Your task to perform on an android device: Show me popular videos on Youtube Image 0: 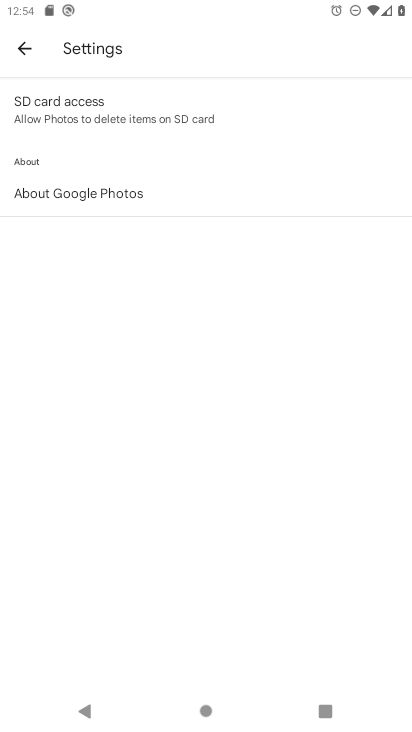
Step 0: press home button
Your task to perform on an android device: Show me popular videos on Youtube Image 1: 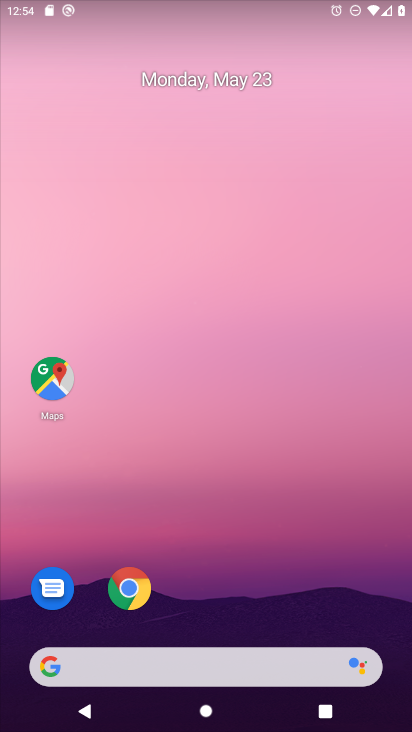
Step 1: drag from (268, 695) to (253, 30)
Your task to perform on an android device: Show me popular videos on Youtube Image 2: 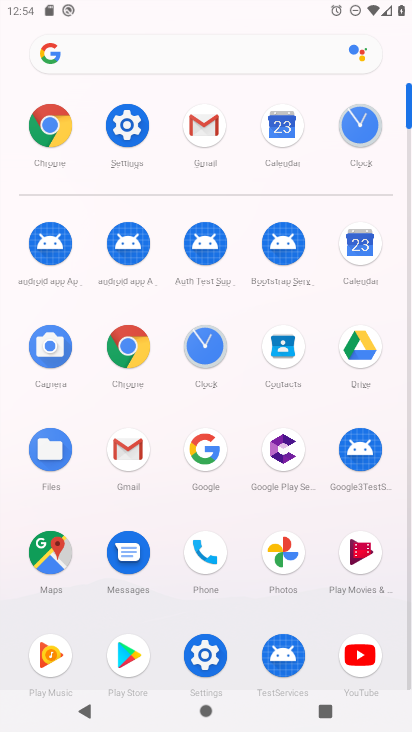
Step 2: click (358, 653)
Your task to perform on an android device: Show me popular videos on Youtube Image 3: 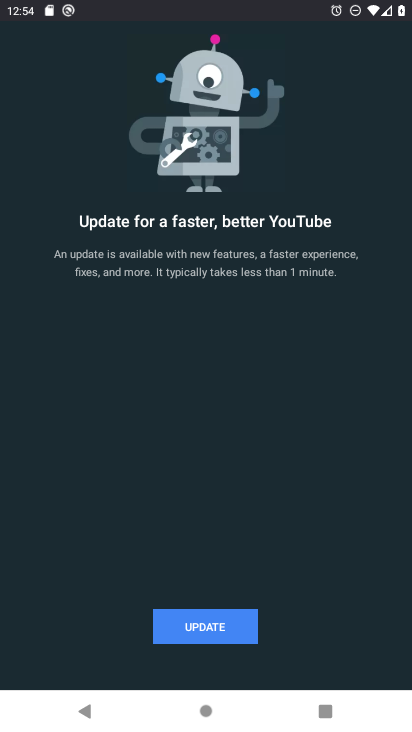
Step 3: click (194, 629)
Your task to perform on an android device: Show me popular videos on Youtube Image 4: 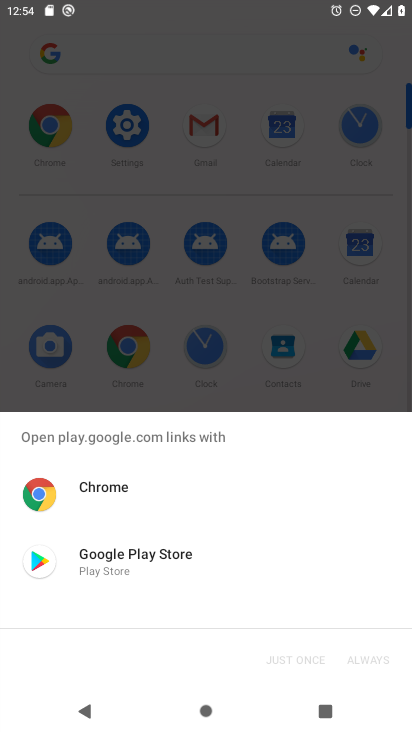
Step 4: click (100, 564)
Your task to perform on an android device: Show me popular videos on Youtube Image 5: 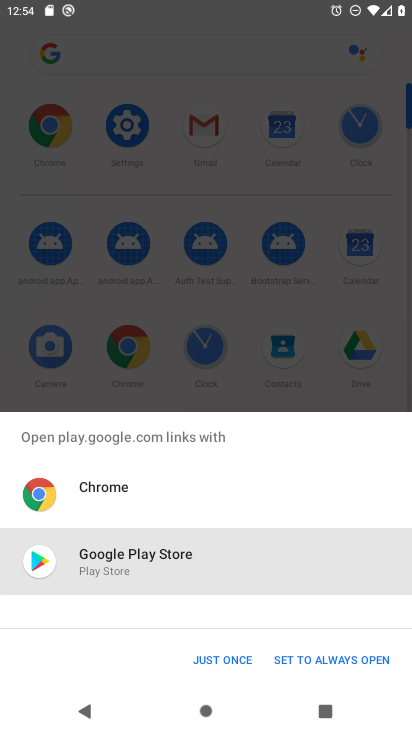
Step 5: click (214, 662)
Your task to perform on an android device: Show me popular videos on Youtube Image 6: 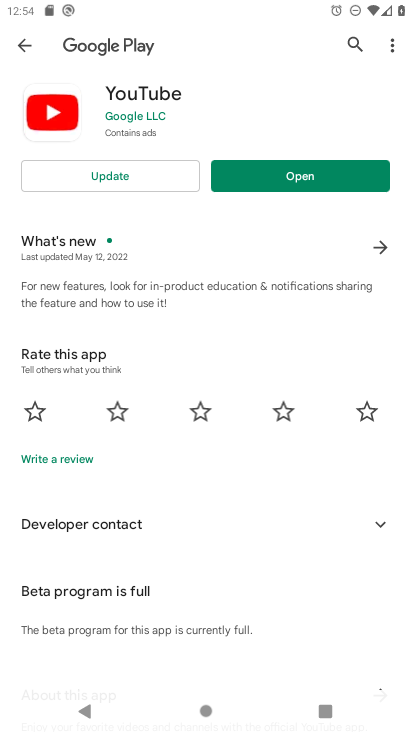
Step 6: click (141, 186)
Your task to perform on an android device: Show me popular videos on Youtube Image 7: 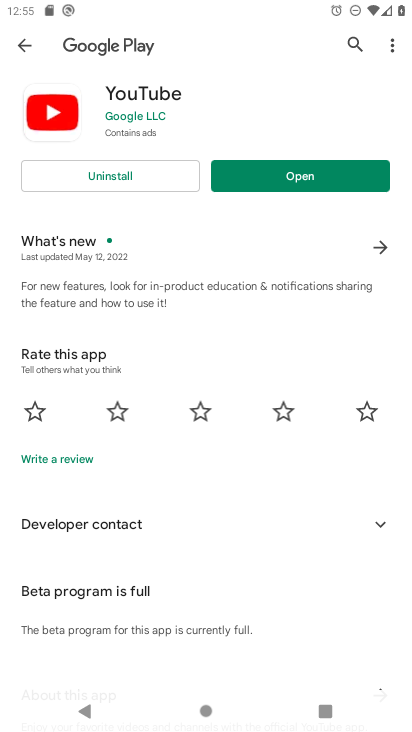
Step 7: click (305, 166)
Your task to perform on an android device: Show me popular videos on Youtube Image 8: 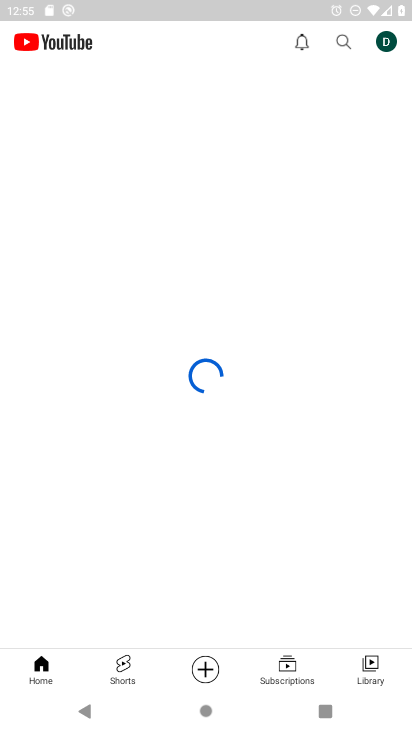
Step 8: click (359, 41)
Your task to perform on an android device: Show me popular videos on Youtube Image 9: 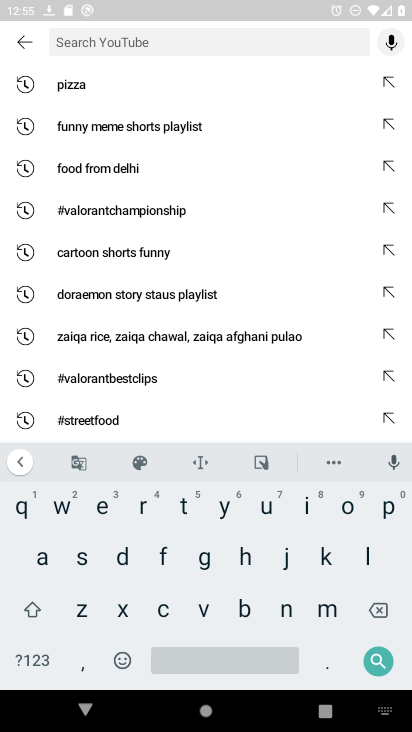
Step 9: click (380, 514)
Your task to perform on an android device: Show me popular videos on Youtube Image 10: 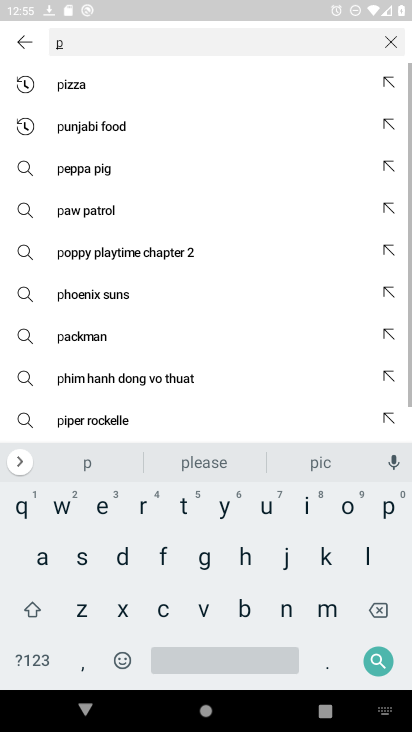
Step 10: click (343, 507)
Your task to perform on an android device: Show me popular videos on Youtube Image 11: 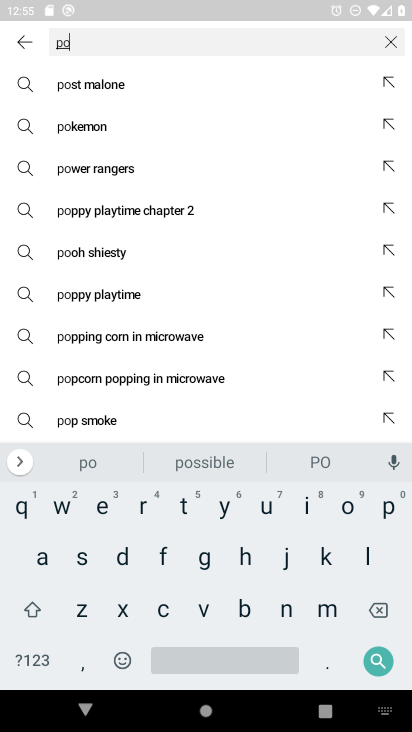
Step 11: click (377, 517)
Your task to perform on an android device: Show me popular videos on Youtube Image 12: 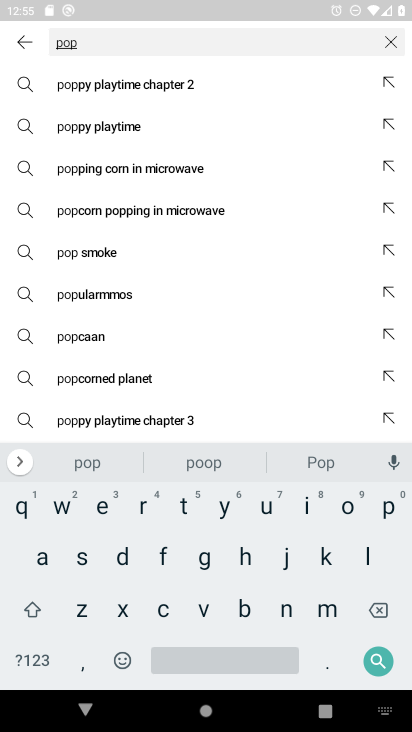
Step 12: click (262, 499)
Your task to perform on an android device: Show me popular videos on Youtube Image 13: 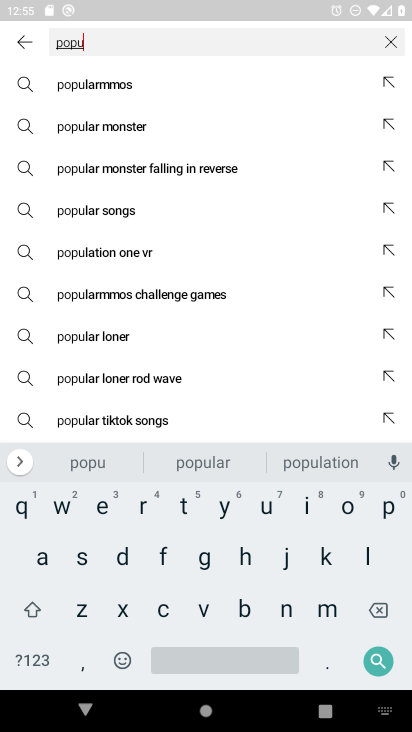
Step 13: click (208, 464)
Your task to perform on an android device: Show me popular videos on Youtube Image 14: 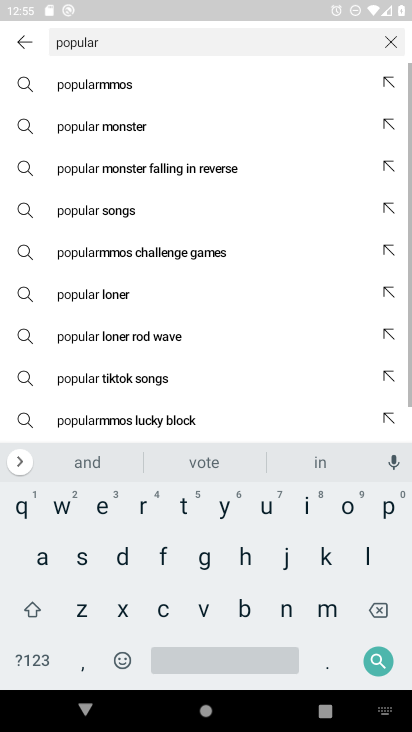
Step 14: click (211, 606)
Your task to perform on an android device: Show me popular videos on Youtube Image 15: 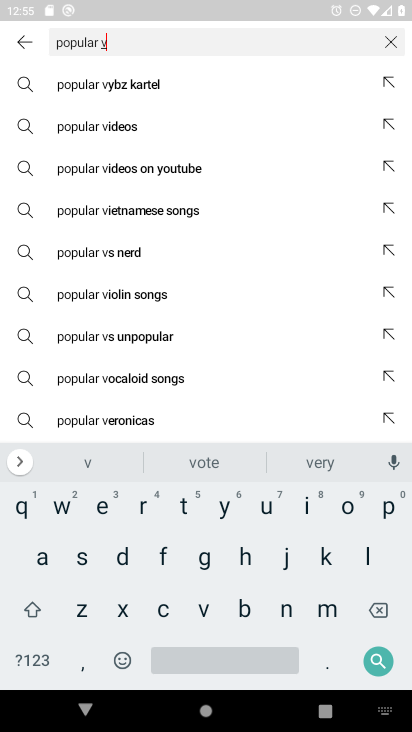
Step 15: click (132, 120)
Your task to perform on an android device: Show me popular videos on Youtube Image 16: 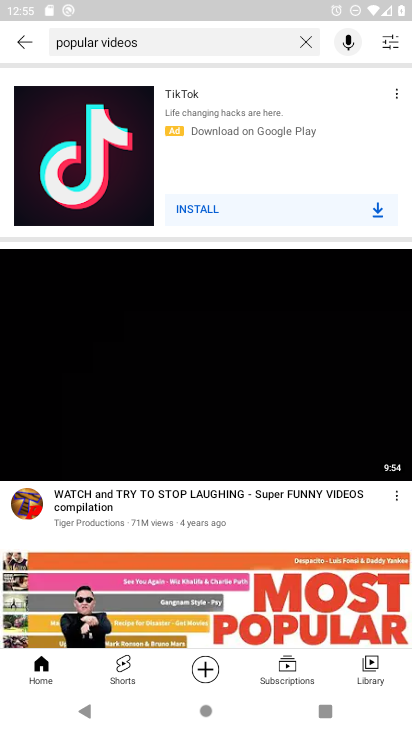
Step 16: task complete